Your task to perform on an android device: toggle javascript in the chrome app Image 0: 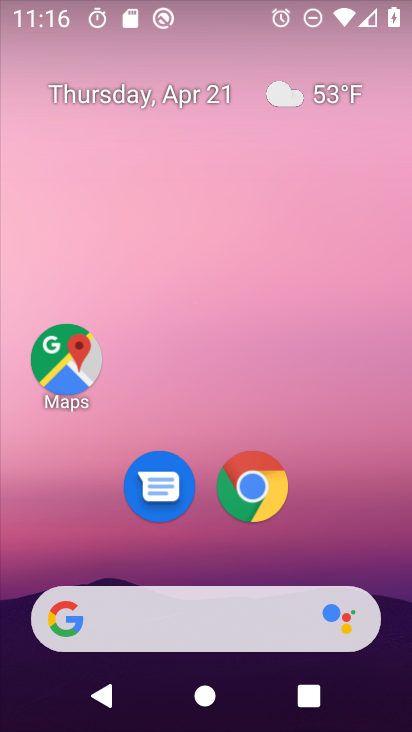
Step 0: click (383, 123)
Your task to perform on an android device: toggle javascript in the chrome app Image 1: 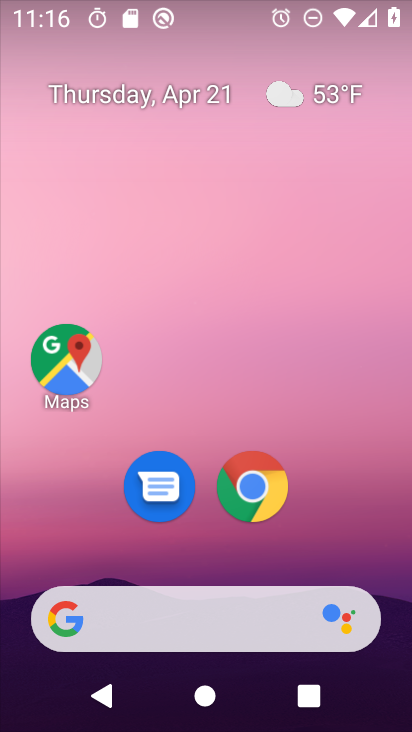
Step 1: drag from (370, 253) to (370, 140)
Your task to perform on an android device: toggle javascript in the chrome app Image 2: 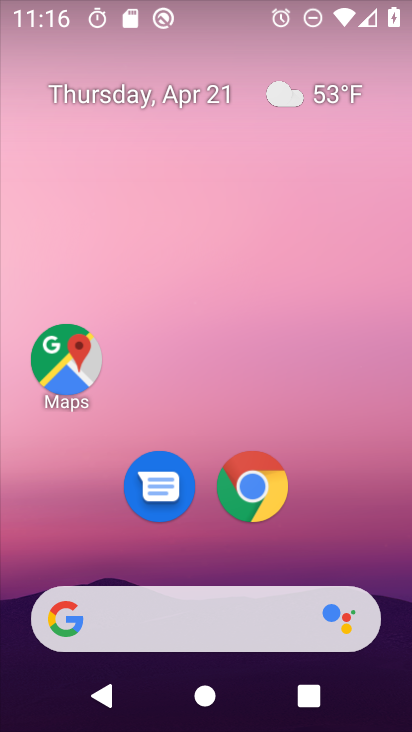
Step 2: drag from (397, 634) to (373, 155)
Your task to perform on an android device: toggle javascript in the chrome app Image 3: 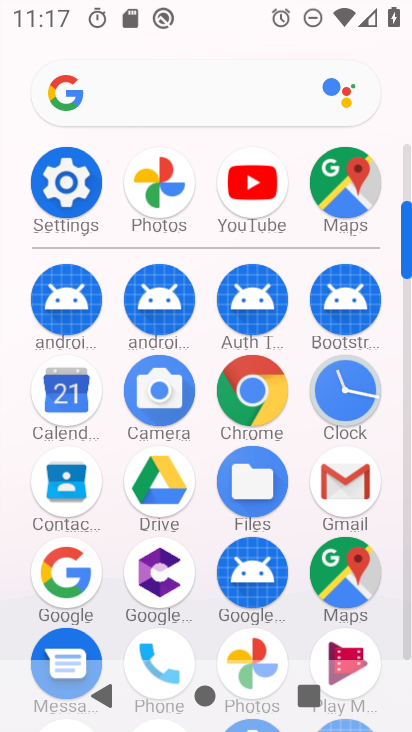
Step 3: click (257, 381)
Your task to perform on an android device: toggle javascript in the chrome app Image 4: 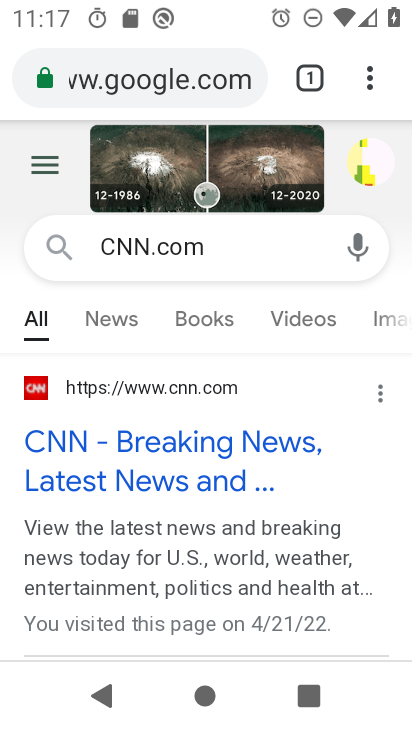
Step 4: click (367, 72)
Your task to perform on an android device: toggle javascript in the chrome app Image 5: 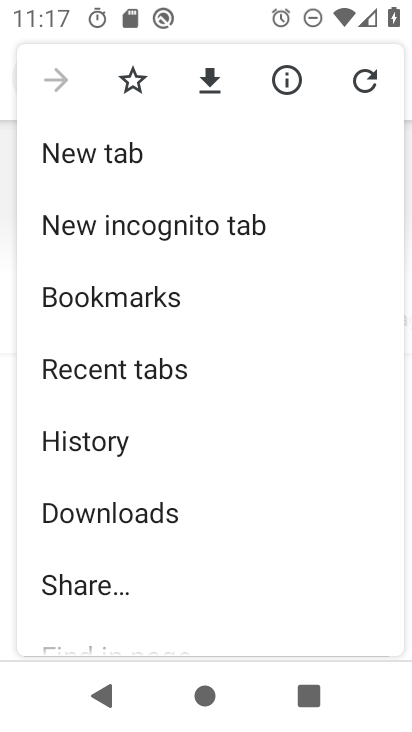
Step 5: drag from (296, 265) to (290, 88)
Your task to perform on an android device: toggle javascript in the chrome app Image 6: 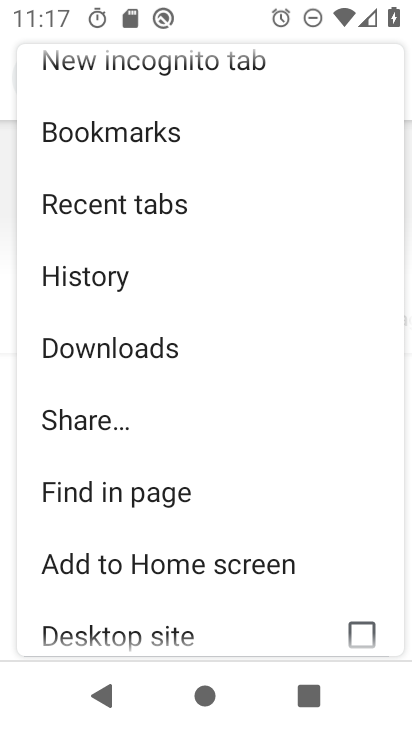
Step 6: drag from (276, 341) to (274, 290)
Your task to perform on an android device: toggle javascript in the chrome app Image 7: 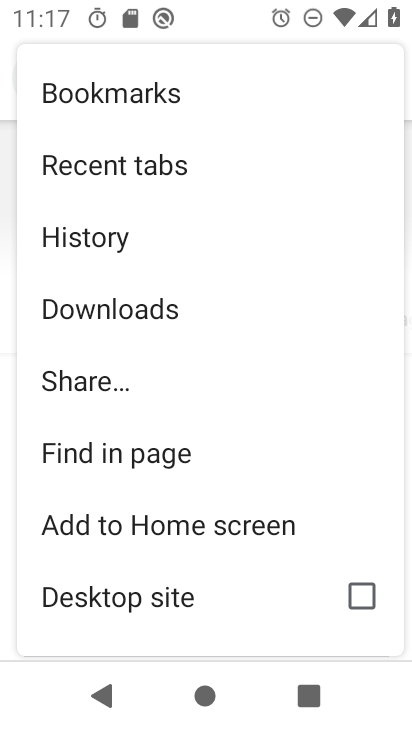
Step 7: drag from (271, 608) to (271, 203)
Your task to perform on an android device: toggle javascript in the chrome app Image 8: 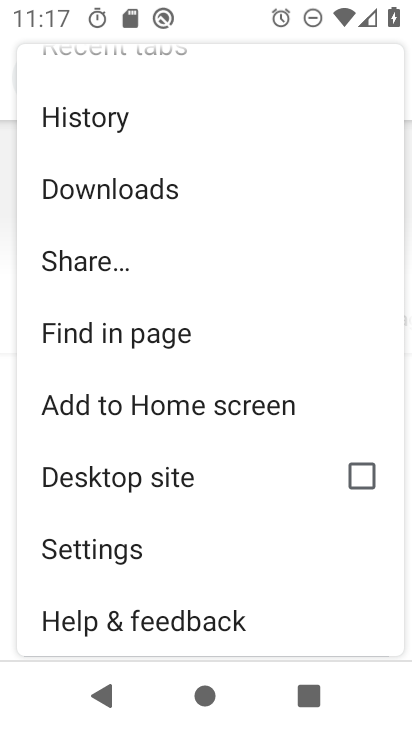
Step 8: click (105, 558)
Your task to perform on an android device: toggle javascript in the chrome app Image 9: 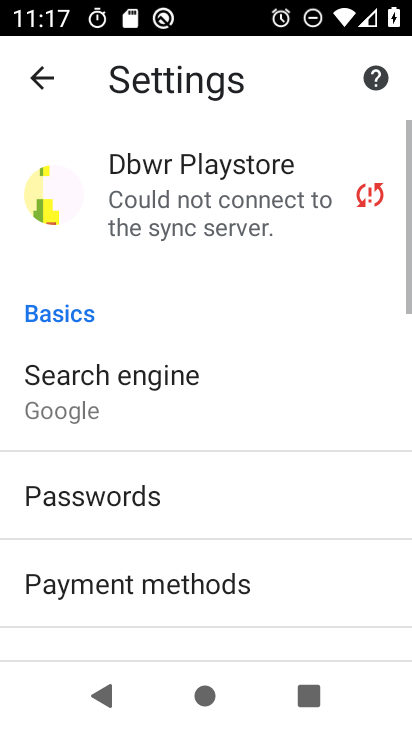
Step 9: drag from (287, 497) to (266, 221)
Your task to perform on an android device: toggle javascript in the chrome app Image 10: 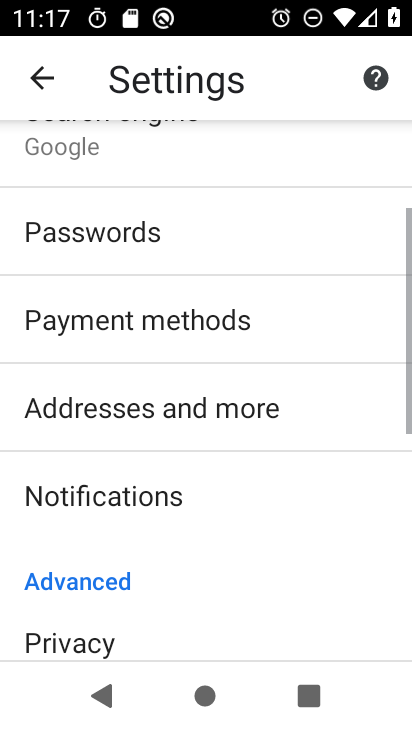
Step 10: drag from (288, 458) to (292, 230)
Your task to perform on an android device: toggle javascript in the chrome app Image 11: 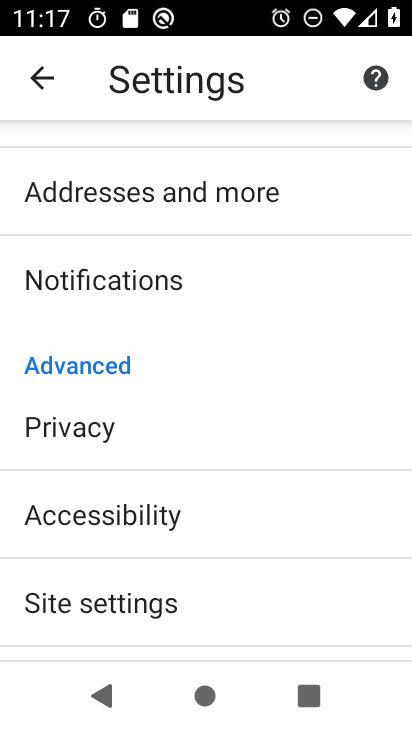
Step 11: drag from (276, 436) to (271, 280)
Your task to perform on an android device: toggle javascript in the chrome app Image 12: 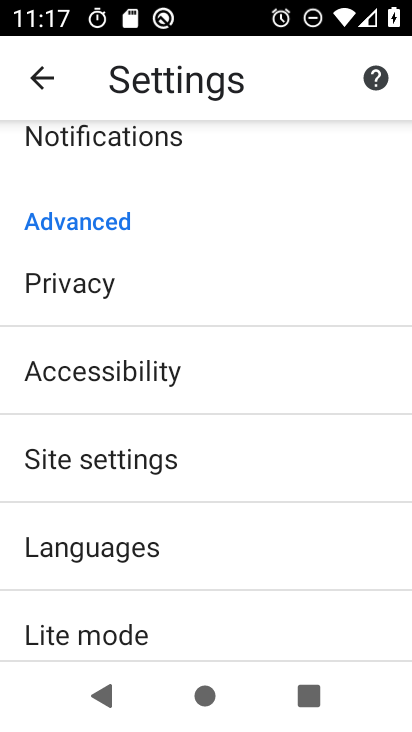
Step 12: click (123, 456)
Your task to perform on an android device: toggle javascript in the chrome app Image 13: 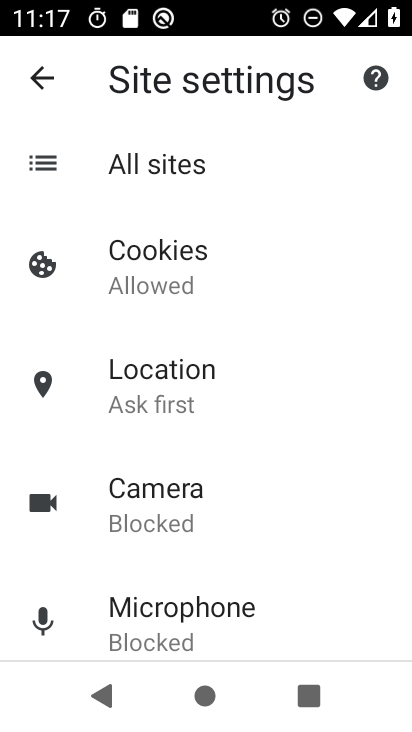
Step 13: drag from (285, 506) to (280, 245)
Your task to perform on an android device: toggle javascript in the chrome app Image 14: 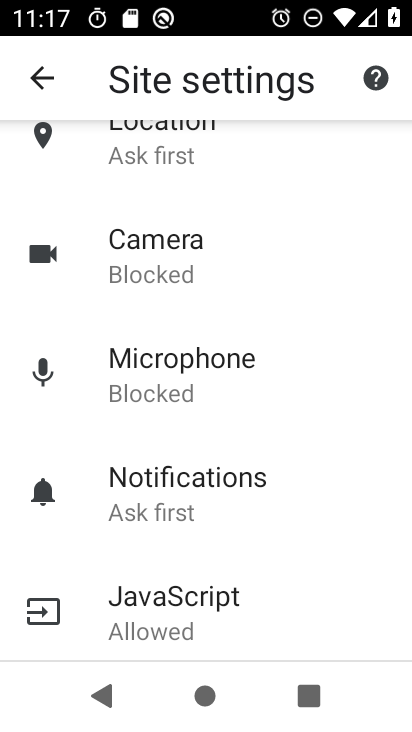
Step 14: click (178, 587)
Your task to perform on an android device: toggle javascript in the chrome app Image 15: 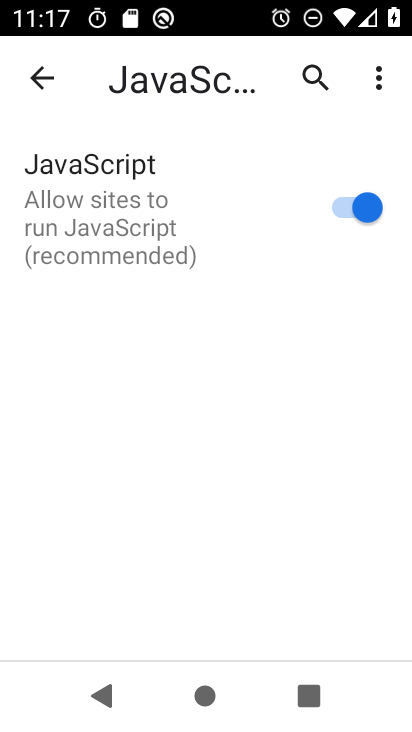
Step 15: click (342, 203)
Your task to perform on an android device: toggle javascript in the chrome app Image 16: 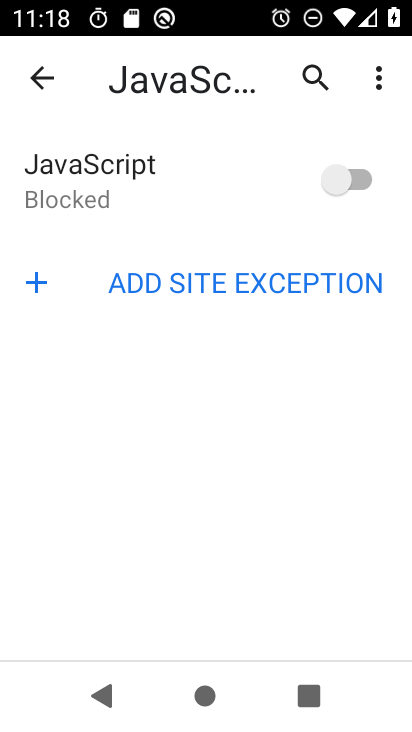
Step 16: task complete